Your task to perform on an android device: turn off javascript in the chrome app Image 0: 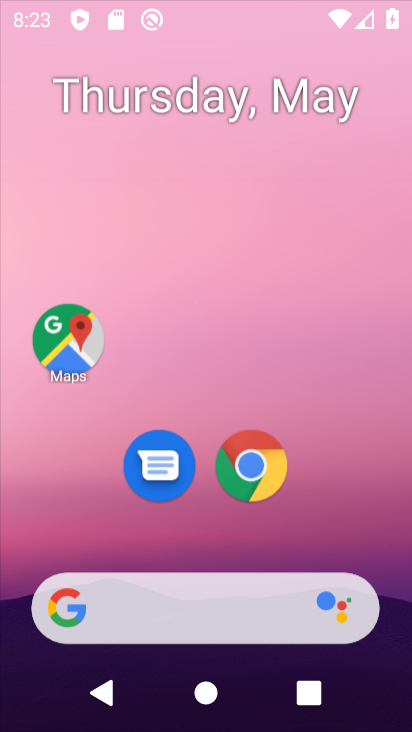
Step 0: click (316, 108)
Your task to perform on an android device: turn off javascript in the chrome app Image 1: 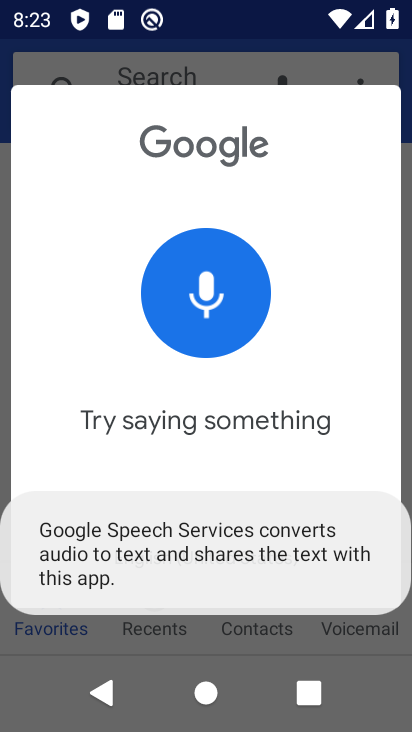
Step 1: press back button
Your task to perform on an android device: turn off javascript in the chrome app Image 2: 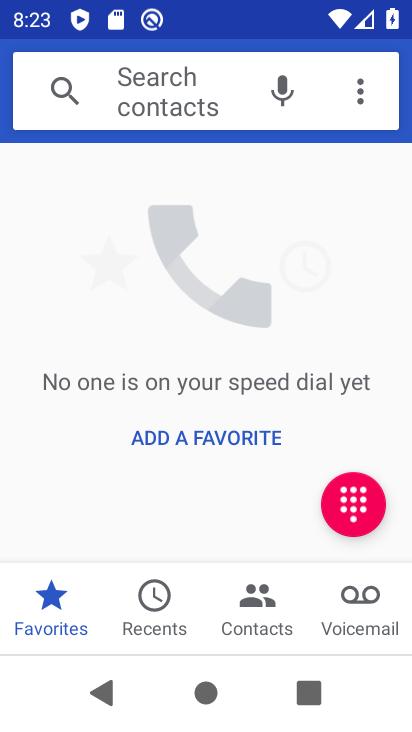
Step 2: press home button
Your task to perform on an android device: turn off javascript in the chrome app Image 3: 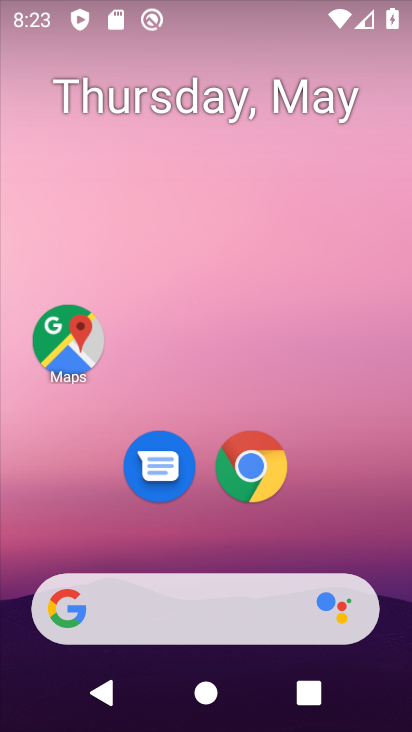
Step 3: click (274, 484)
Your task to perform on an android device: turn off javascript in the chrome app Image 4: 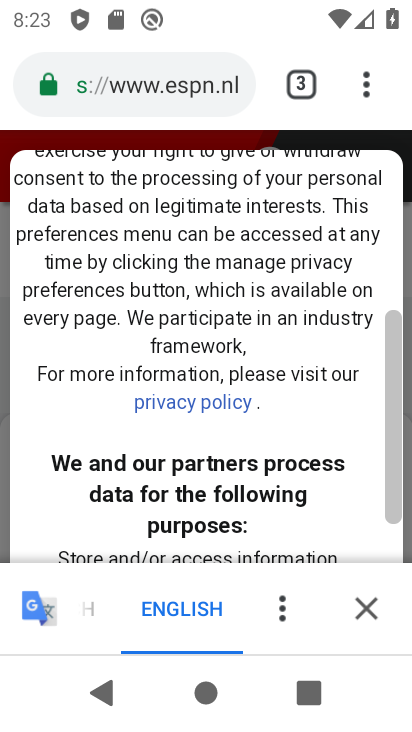
Step 4: click (368, 102)
Your task to perform on an android device: turn off javascript in the chrome app Image 5: 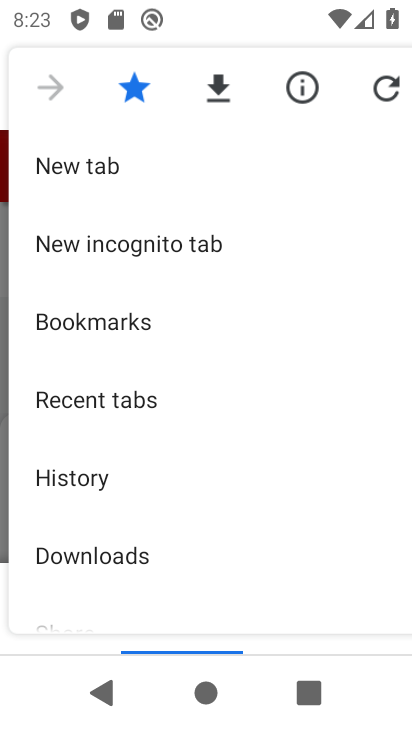
Step 5: drag from (259, 578) to (245, 123)
Your task to perform on an android device: turn off javascript in the chrome app Image 6: 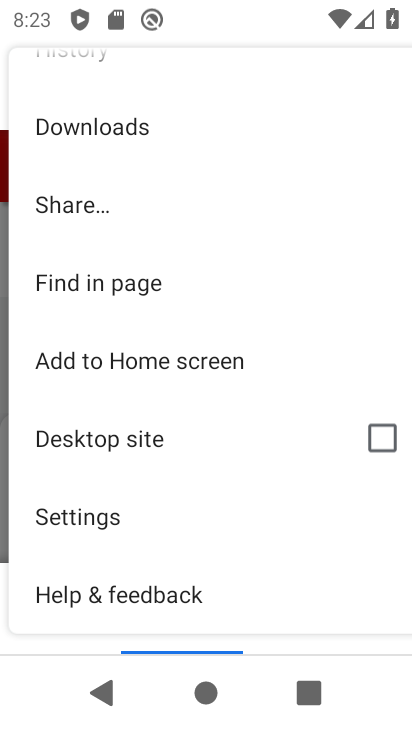
Step 6: click (204, 520)
Your task to perform on an android device: turn off javascript in the chrome app Image 7: 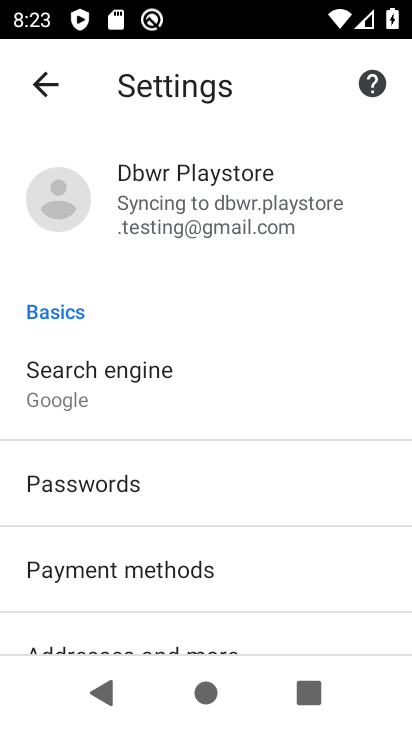
Step 7: drag from (259, 628) to (204, 116)
Your task to perform on an android device: turn off javascript in the chrome app Image 8: 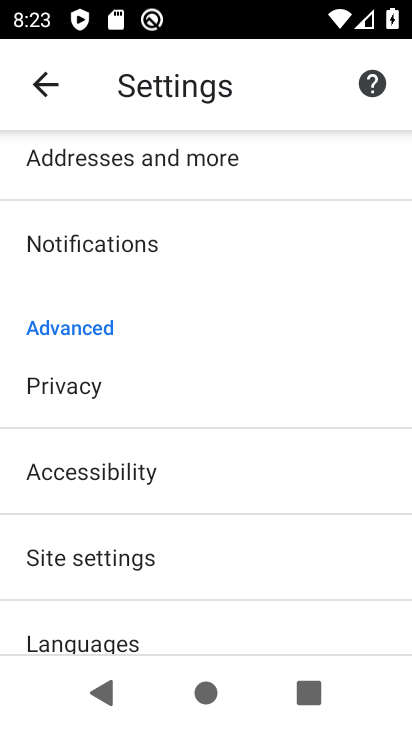
Step 8: click (222, 547)
Your task to perform on an android device: turn off javascript in the chrome app Image 9: 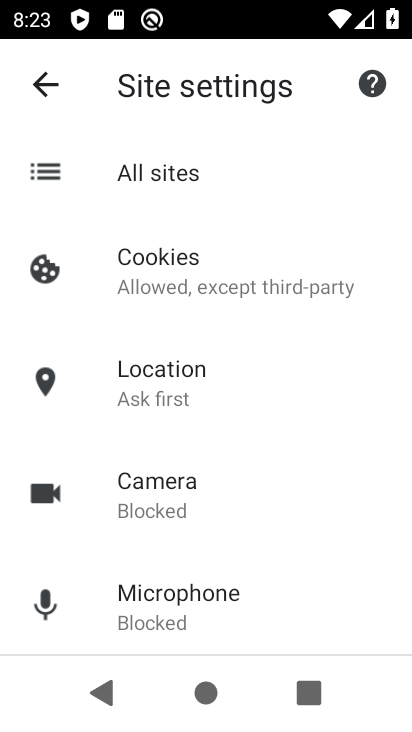
Step 9: drag from (229, 548) to (191, 173)
Your task to perform on an android device: turn off javascript in the chrome app Image 10: 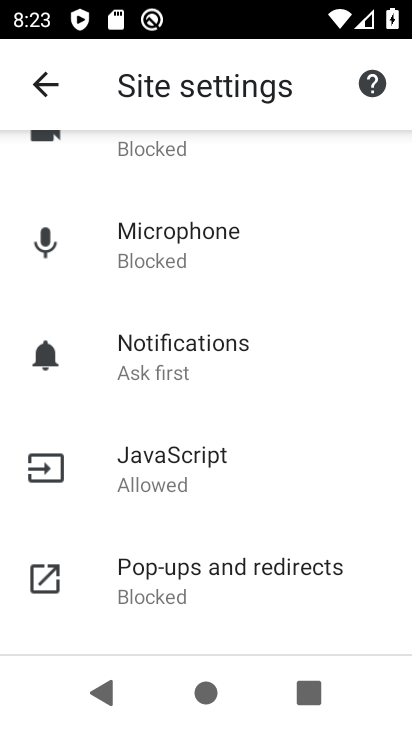
Step 10: click (208, 452)
Your task to perform on an android device: turn off javascript in the chrome app Image 11: 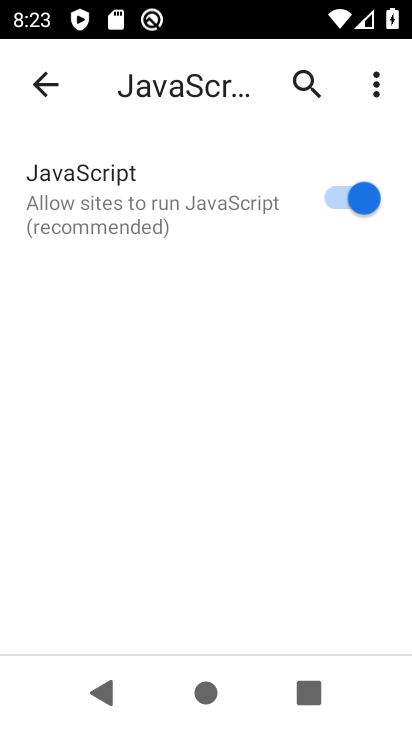
Step 11: click (344, 201)
Your task to perform on an android device: turn off javascript in the chrome app Image 12: 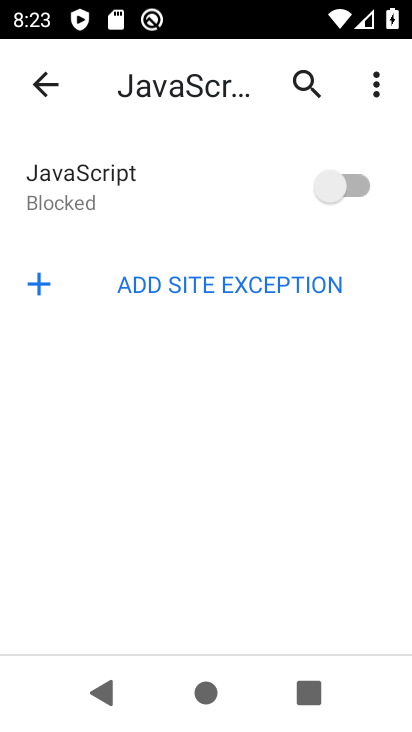
Step 12: task complete